Your task to perform on an android device: empty trash in the gmail app Image 0: 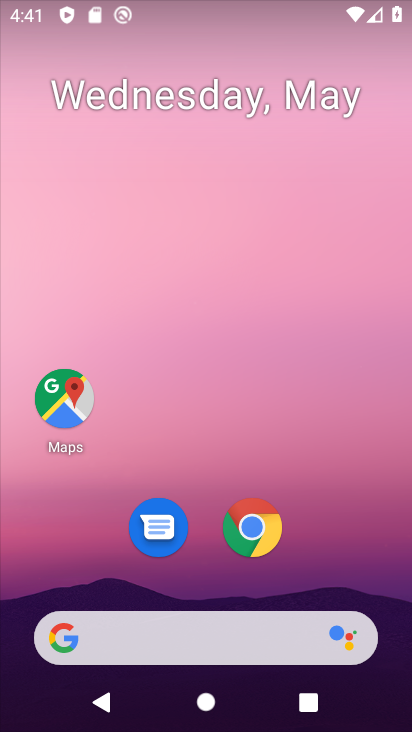
Step 0: drag from (300, 563) to (291, 109)
Your task to perform on an android device: empty trash in the gmail app Image 1: 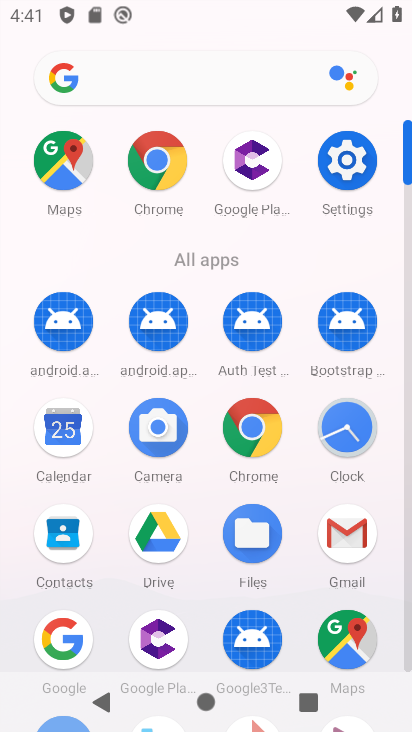
Step 1: click (348, 557)
Your task to perform on an android device: empty trash in the gmail app Image 2: 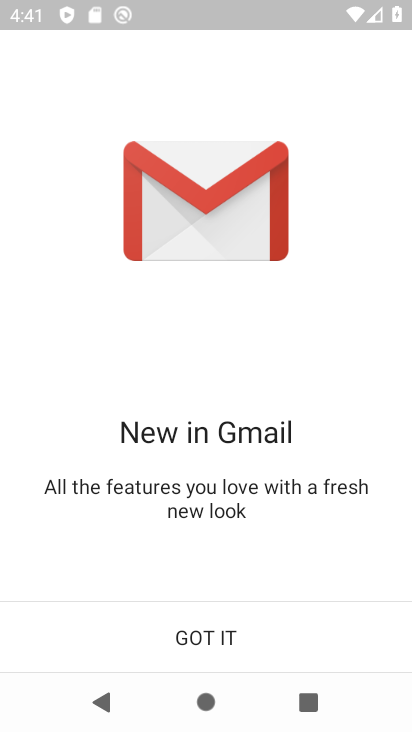
Step 2: click (186, 647)
Your task to perform on an android device: empty trash in the gmail app Image 3: 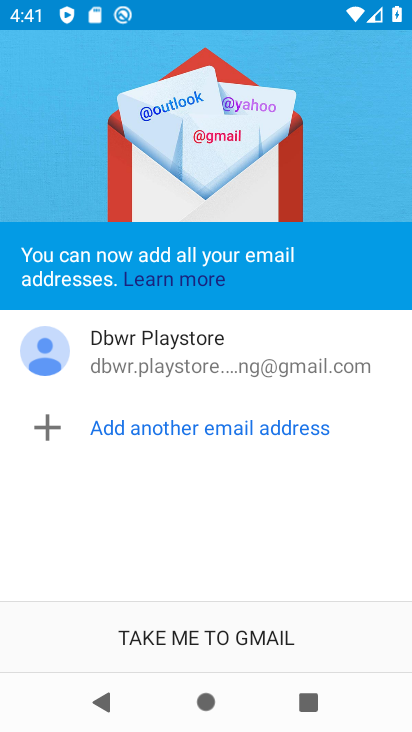
Step 3: click (205, 640)
Your task to perform on an android device: empty trash in the gmail app Image 4: 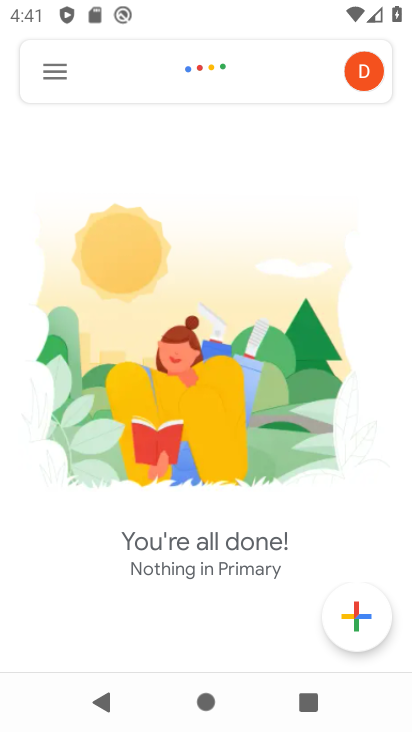
Step 4: click (48, 77)
Your task to perform on an android device: empty trash in the gmail app Image 5: 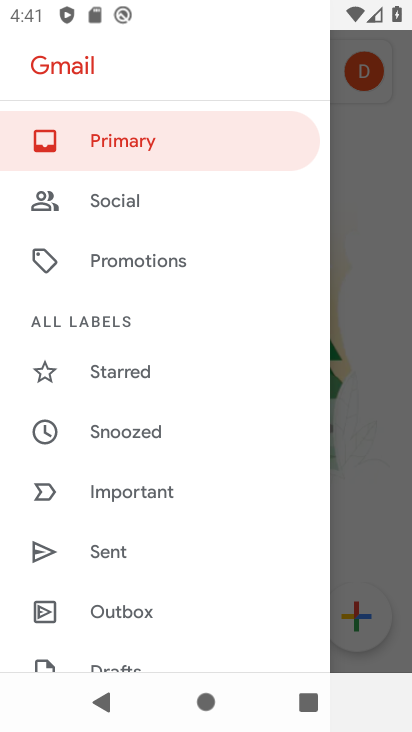
Step 5: drag from (126, 585) to (191, 243)
Your task to perform on an android device: empty trash in the gmail app Image 6: 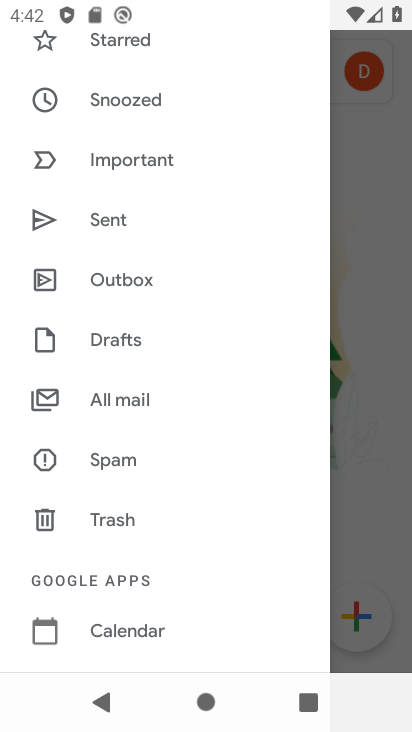
Step 6: click (108, 516)
Your task to perform on an android device: empty trash in the gmail app Image 7: 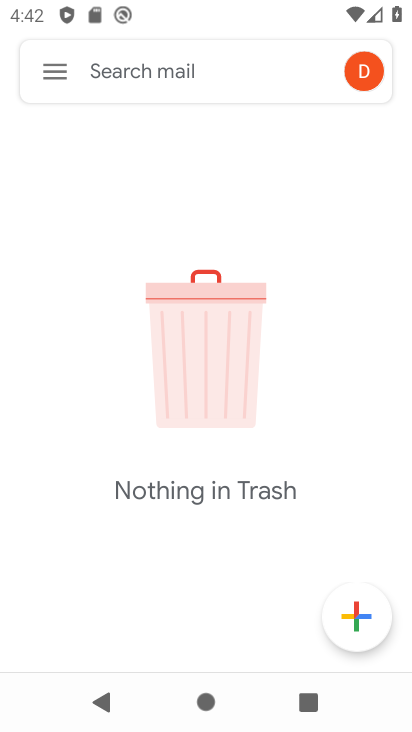
Step 7: task complete